Your task to perform on an android device: find photos in the google photos app Image 0: 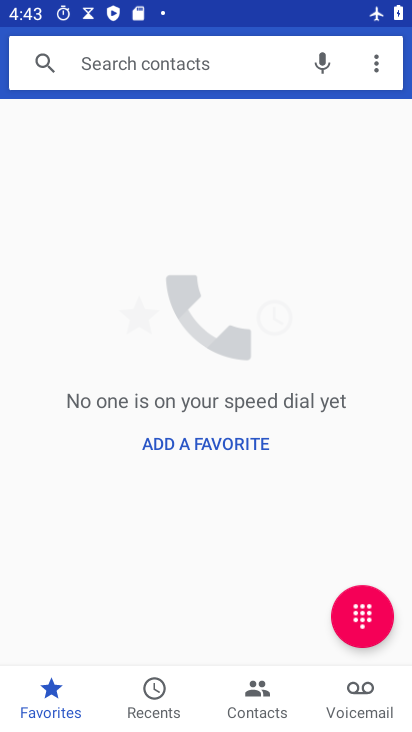
Step 0: press home button
Your task to perform on an android device: find photos in the google photos app Image 1: 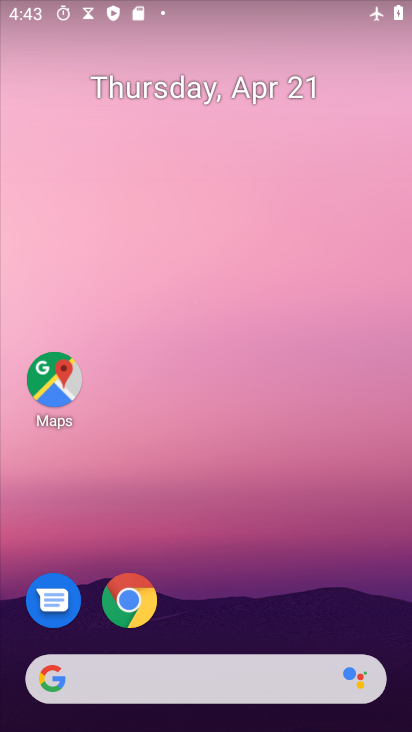
Step 1: drag from (254, 584) to (241, 44)
Your task to perform on an android device: find photos in the google photos app Image 2: 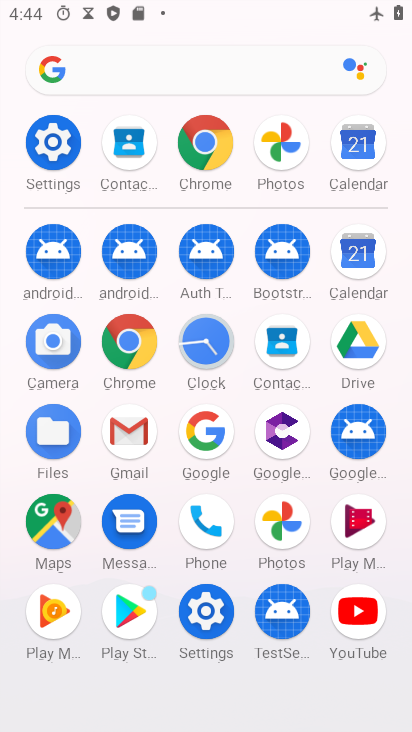
Step 2: click (284, 142)
Your task to perform on an android device: find photos in the google photos app Image 3: 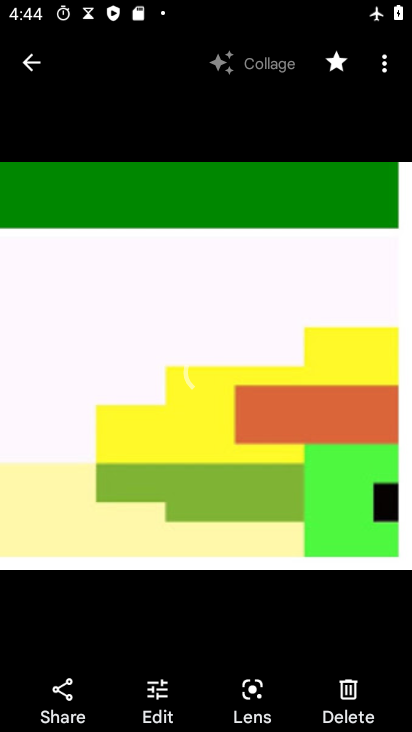
Step 3: press back button
Your task to perform on an android device: find photos in the google photos app Image 4: 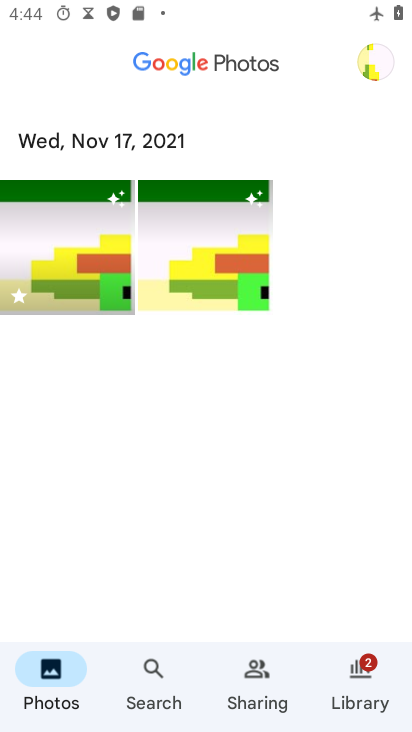
Step 4: click (146, 667)
Your task to perform on an android device: find photos in the google photos app Image 5: 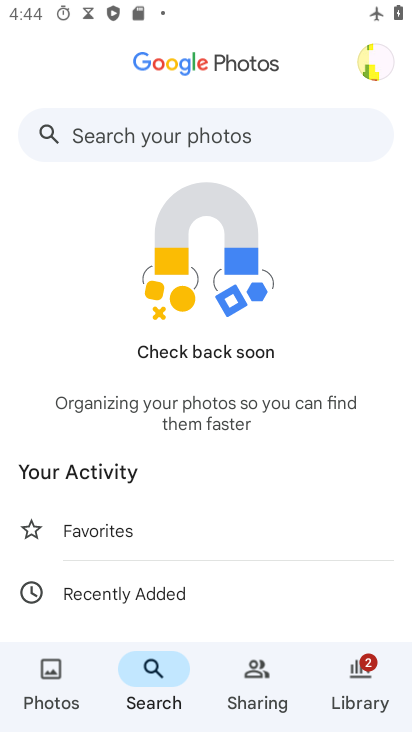
Step 5: click (121, 528)
Your task to perform on an android device: find photos in the google photos app Image 6: 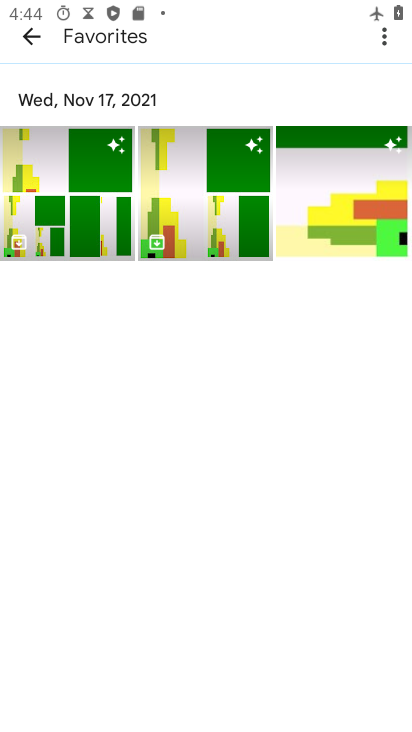
Step 6: click (317, 211)
Your task to perform on an android device: find photos in the google photos app Image 7: 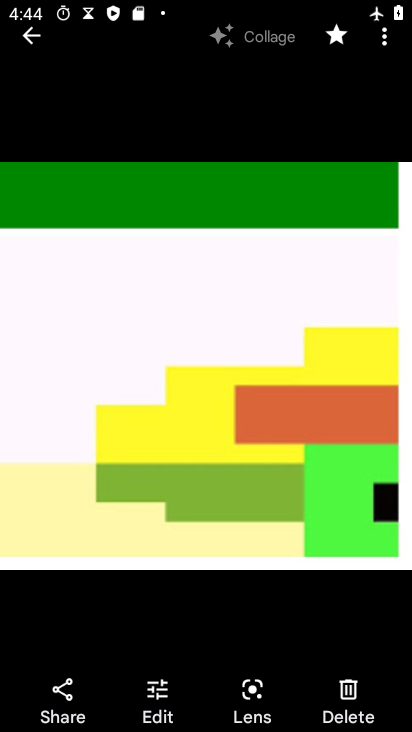
Step 7: task complete